Your task to perform on an android device: set default search engine in the chrome app Image 0: 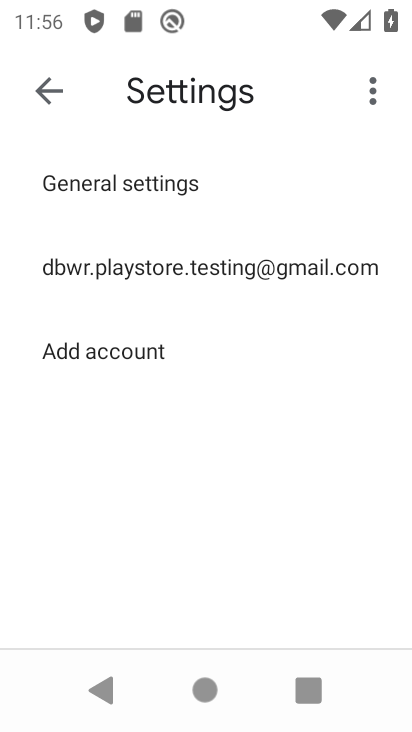
Step 0: press back button
Your task to perform on an android device: set default search engine in the chrome app Image 1: 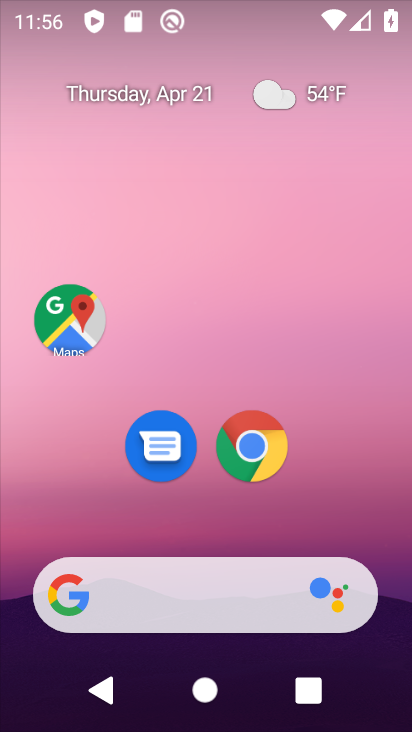
Step 1: click (273, 445)
Your task to perform on an android device: set default search engine in the chrome app Image 2: 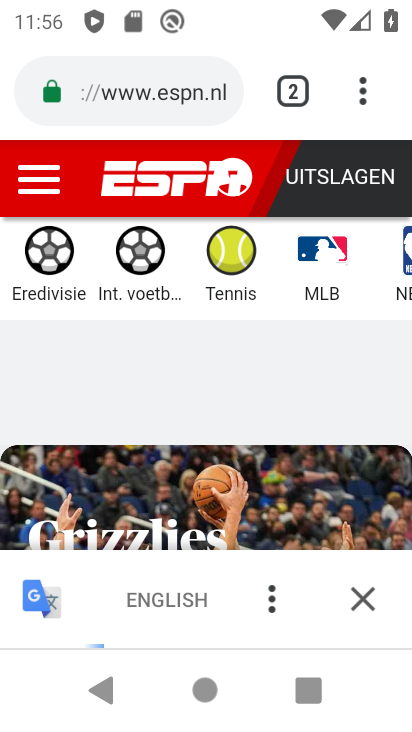
Step 2: drag from (365, 123) to (297, 453)
Your task to perform on an android device: set default search engine in the chrome app Image 3: 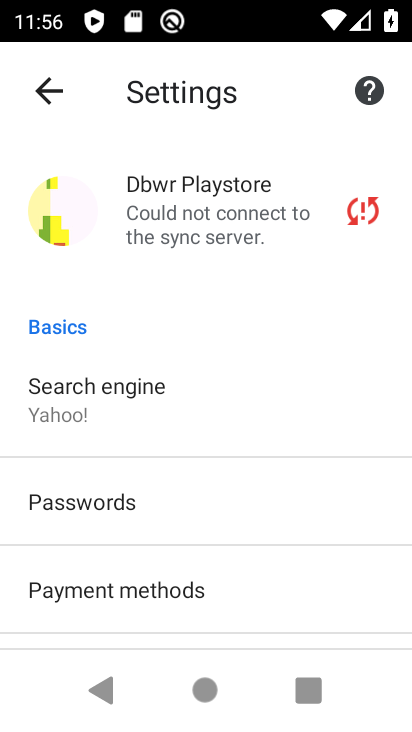
Step 3: click (248, 418)
Your task to perform on an android device: set default search engine in the chrome app Image 4: 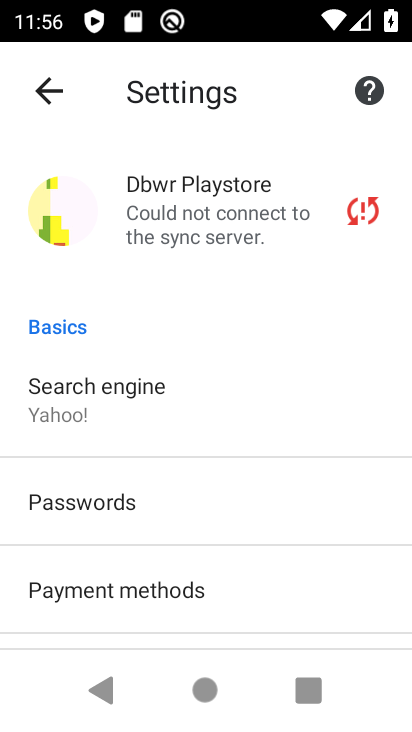
Step 4: click (248, 418)
Your task to perform on an android device: set default search engine in the chrome app Image 5: 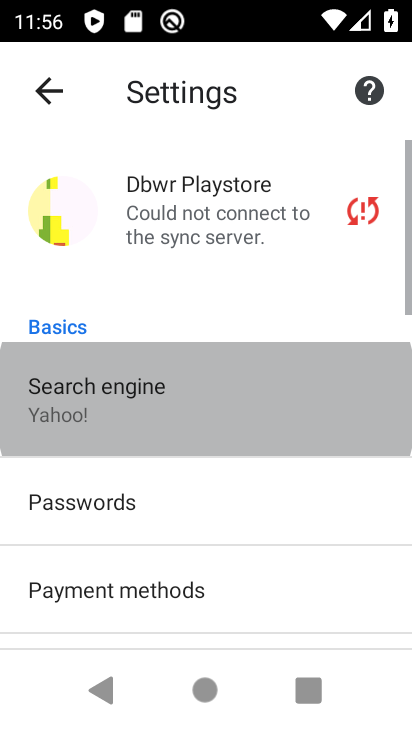
Step 5: click (136, 405)
Your task to perform on an android device: set default search engine in the chrome app Image 6: 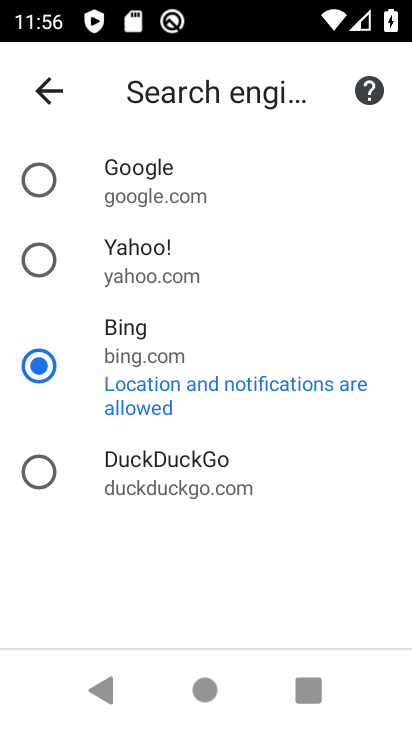
Step 6: click (145, 186)
Your task to perform on an android device: set default search engine in the chrome app Image 7: 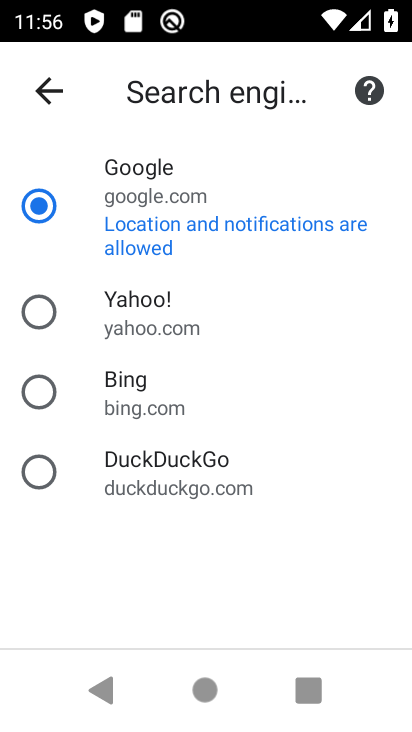
Step 7: task complete